Your task to perform on an android device: turn off picture-in-picture Image 0: 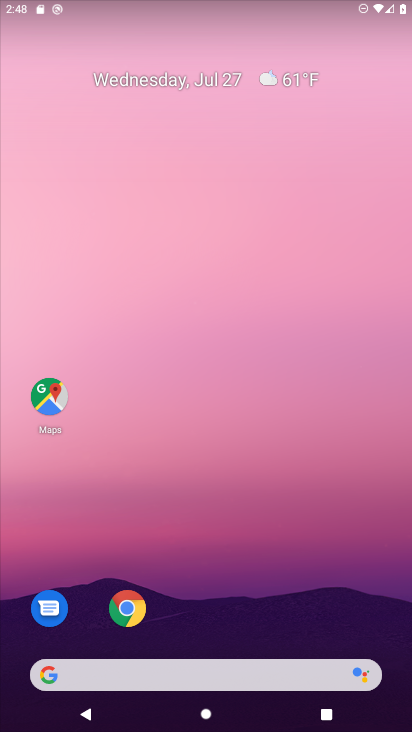
Step 0: drag from (229, 609) to (258, 347)
Your task to perform on an android device: turn off picture-in-picture Image 1: 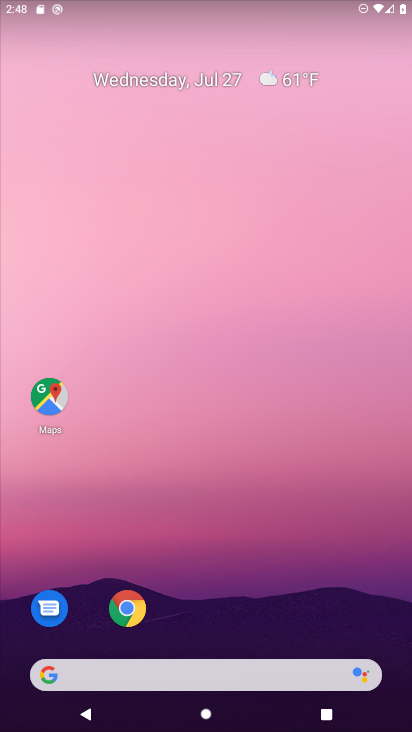
Step 1: drag from (218, 625) to (221, 283)
Your task to perform on an android device: turn off picture-in-picture Image 2: 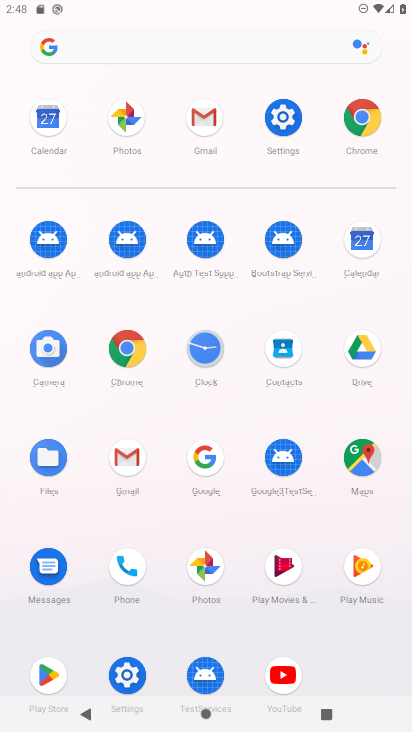
Step 2: click (286, 122)
Your task to perform on an android device: turn off picture-in-picture Image 3: 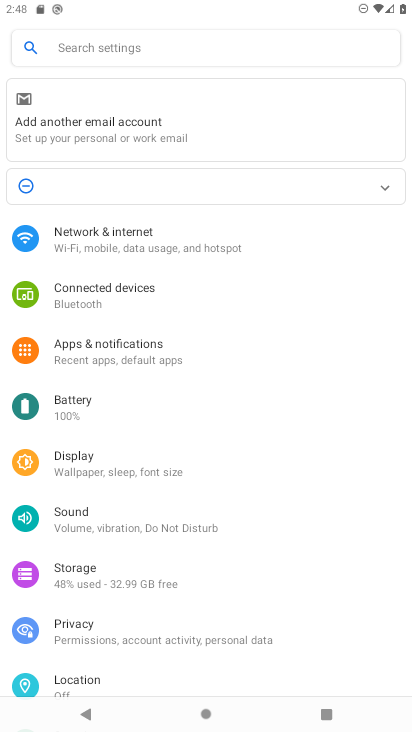
Step 3: click (143, 419)
Your task to perform on an android device: turn off picture-in-picture Image 4: 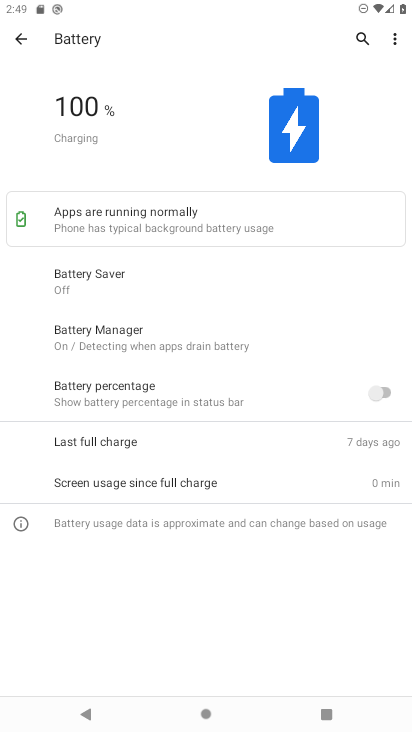
Step 4: task complete